Your task to perform on an android device: change the clock display to digital Image 0: 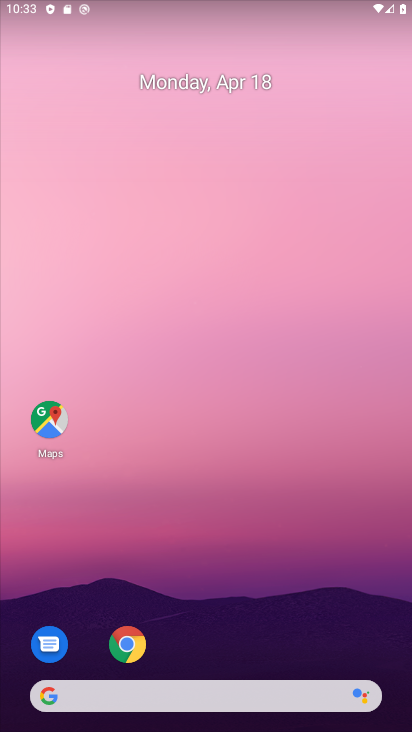
Step 0: drag from (224, 496) to (257, 57)
Your task to perform on an android device: change the clock display to digital Image 1: 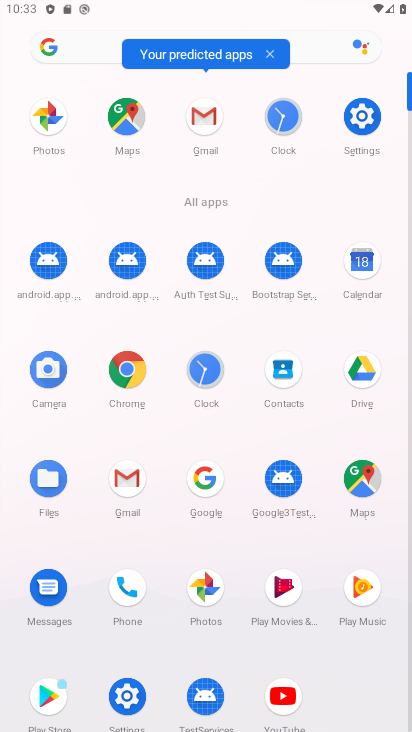
Step 1: click (283, 122)
Your task to perform on an android device: change the clock display to digital Image 2: 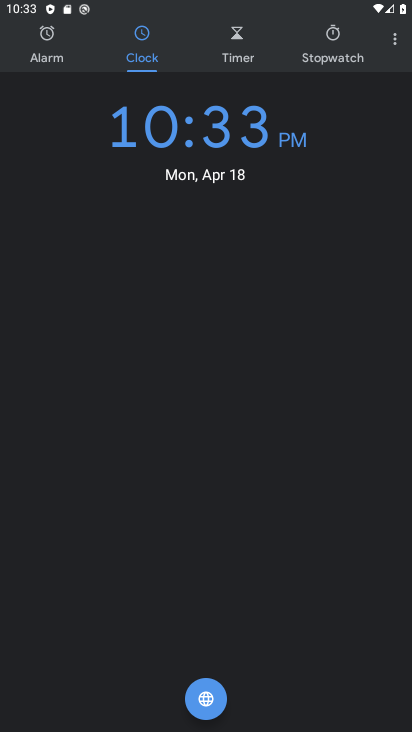
Step 2: click (399, 40)
Your task to perform on an android device: change the clock display to digital Image 3: 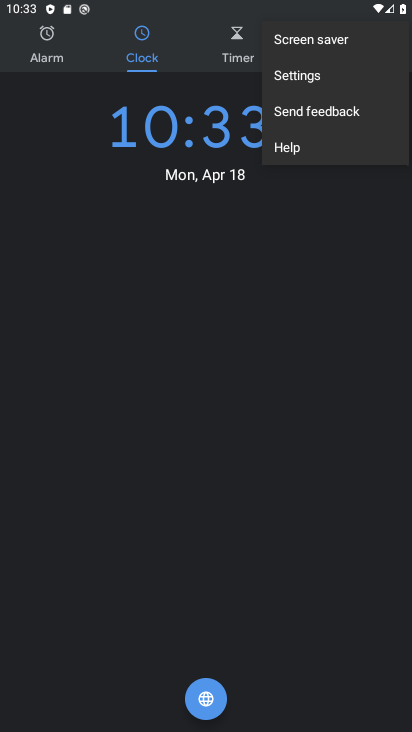
Step 3: click (301, 74)
Your task to perform on an android device: change the clock display to digital Image 4: 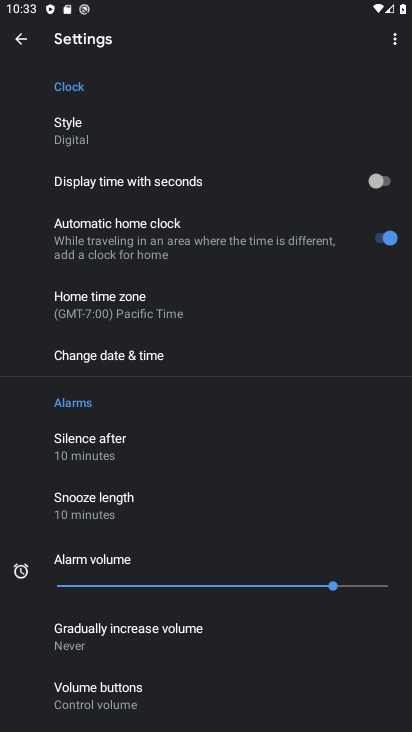
Step 4: click (93, 133)
Your task to perform on an android device: change the clock display to digital Image 5: 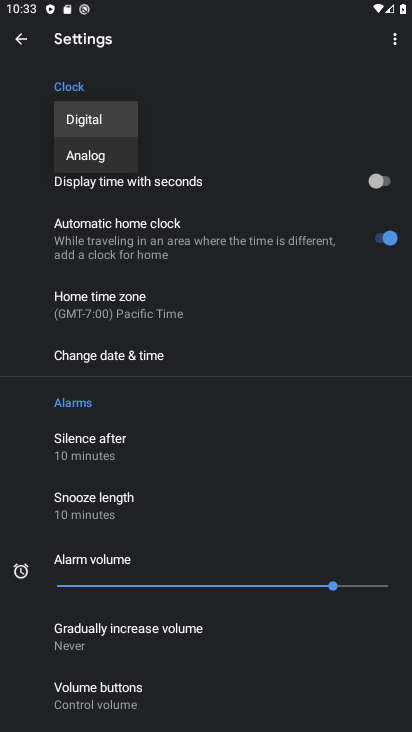
Step 5: task complete